Your task to perform on an android device: move an email to a new category in the gmail app Image 0: 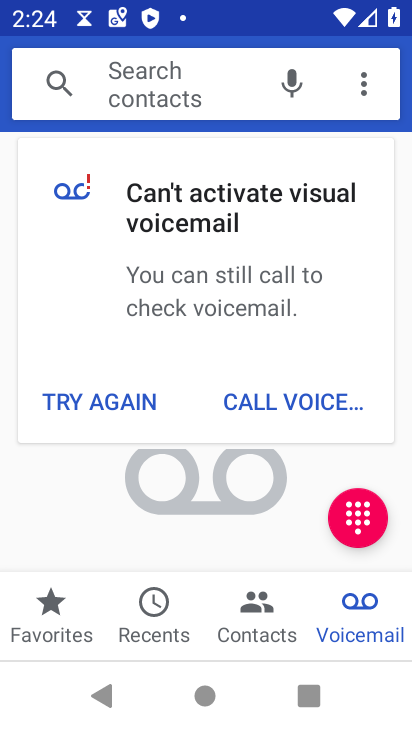
Step 0: press home button
Your task to perform on an android device: move an email to a new category in the gmail app Image 1: 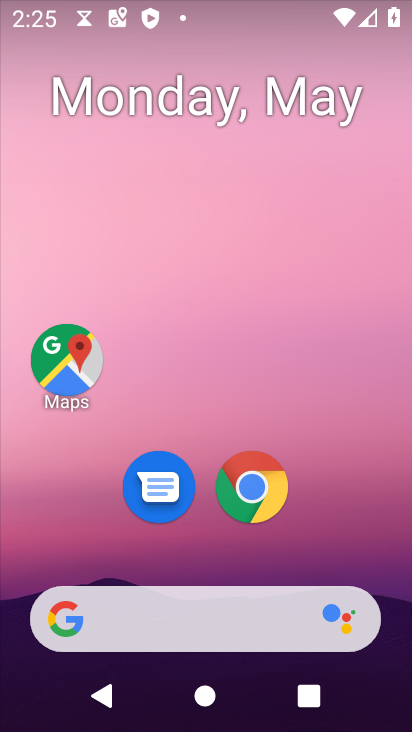
Step 1: drag from (394, 598) to (303, 180)
Your task to perform on an android device: move an email to a new category in the gmail app Image 2: 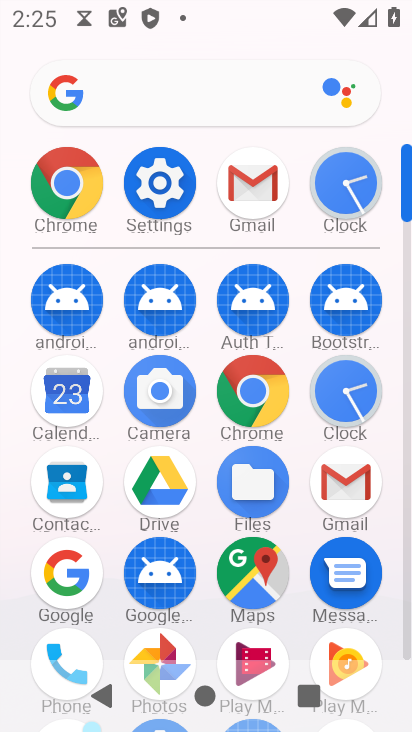
Step 2: click (266, 198)
Your task to perform on an android device: move an email to a new category in the gmail app Image 3: 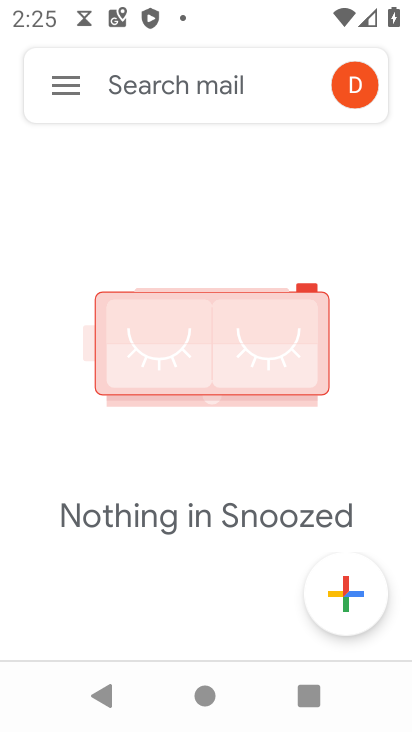
Step 3: click (68, 93)
Your task to perform on an android device: move an email to a new category in the gmail app Image 4: 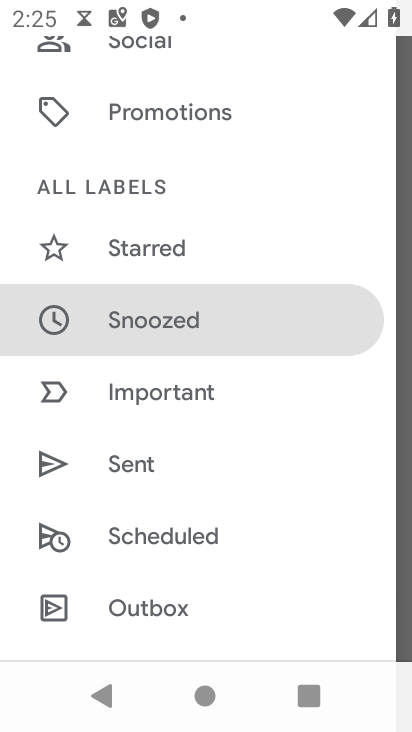
Step 4: drag from (192, 574) to (189, 180)
Your task to perform on an android device: move an email to a new category in the gmail app Image 5: 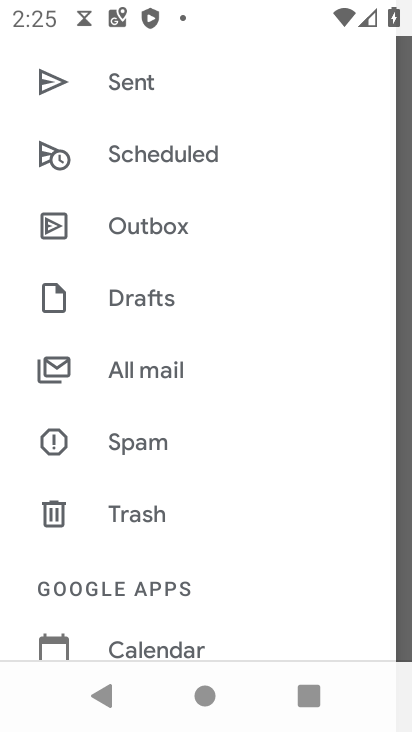
Step 5: drag from (229, 555) to (239, 241)
Your task to perform on an android device: move an email to a new category in the gmail app Image 6: 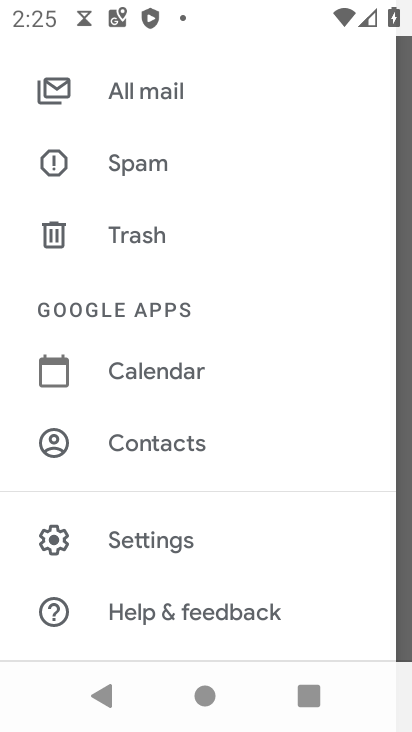
Step 6: click (202, 99)
Your task to perform on an android device: move an email to a new category in the gmail app Image 7: 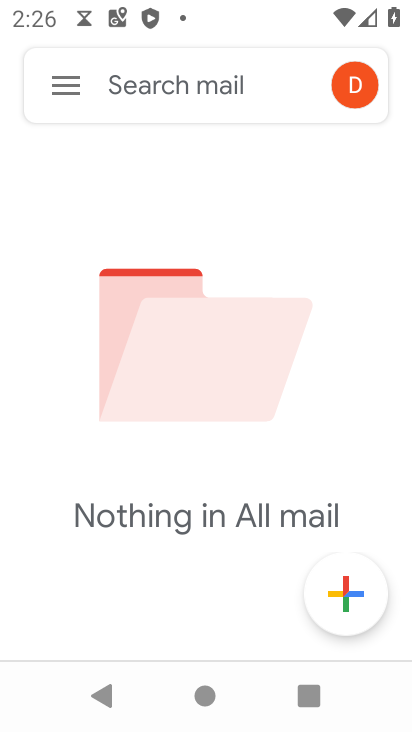
Step 7: task complete